Your task to perform on an android device: Go to accessibility settings Image 0: 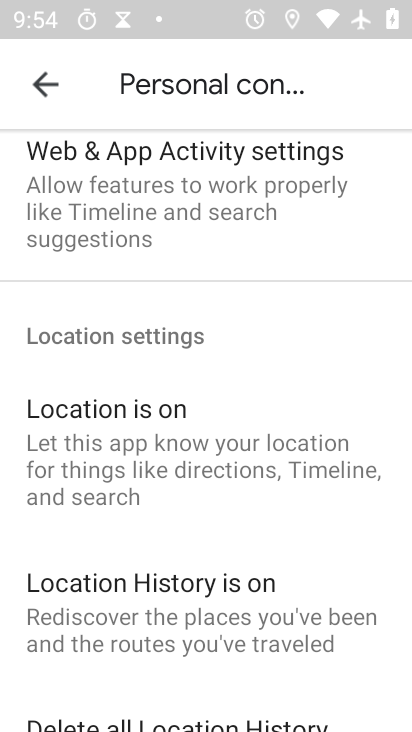
Step 0: press home button
Your task to perform on an android device: Go to accessibility settings Image 1: 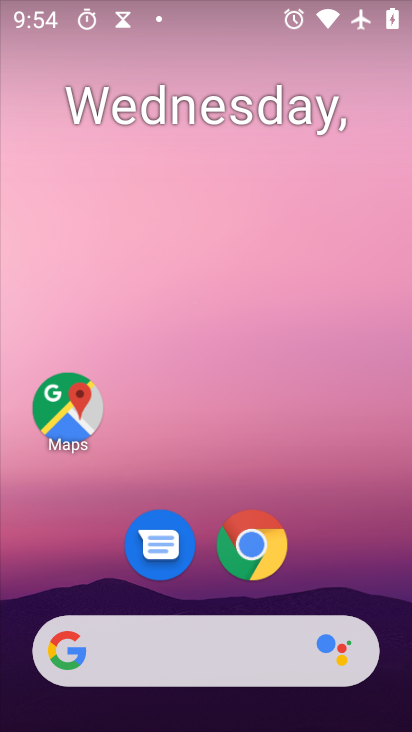
Step 1: drag from (223, 612) to (316, 28)
Your task to perform on an android device: Go to accessibility settings Image 2: 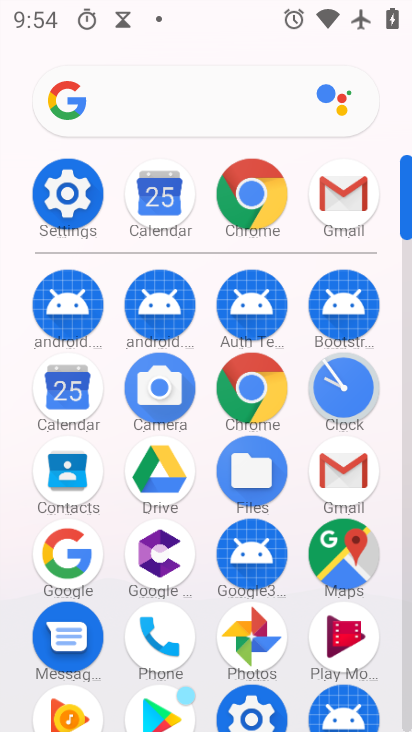
Step 2: click (66, 201)
Your task to perform on an android device: Go to accessibility settings Image 3: 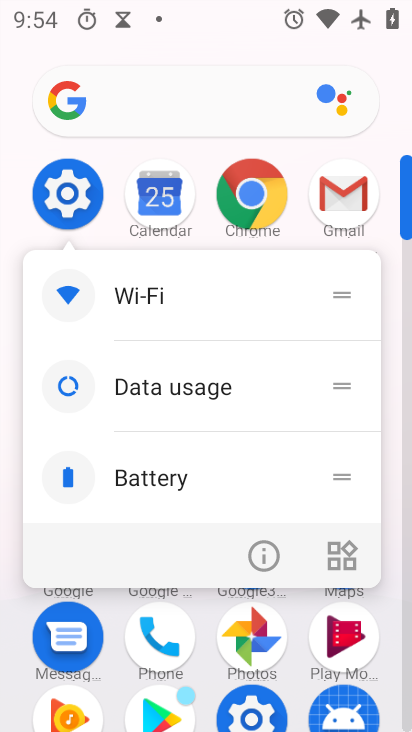
Step 3: click (65, 204)
Your task to perform on an android device: Go to accessibility settings Image 4: 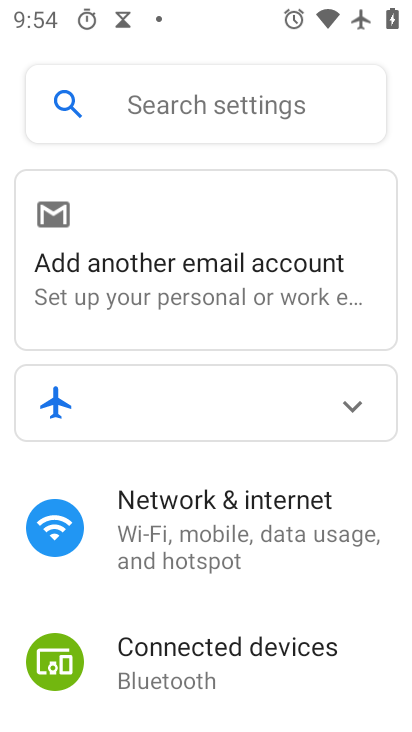
Step 4: drag from (219, 675) to (241, 209)
Your task to perform on an android device: Go to accessibility settings Image 5: 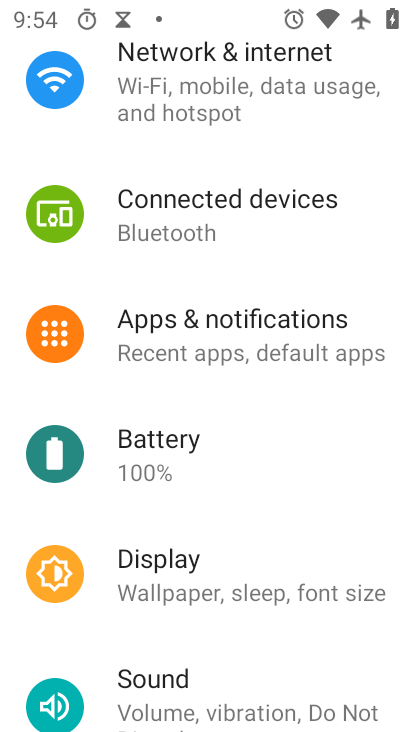
Step 5: drag from (236, 691) to (269, 157)
Your task to perform on an android device: Go to accessibility settings Image 6: 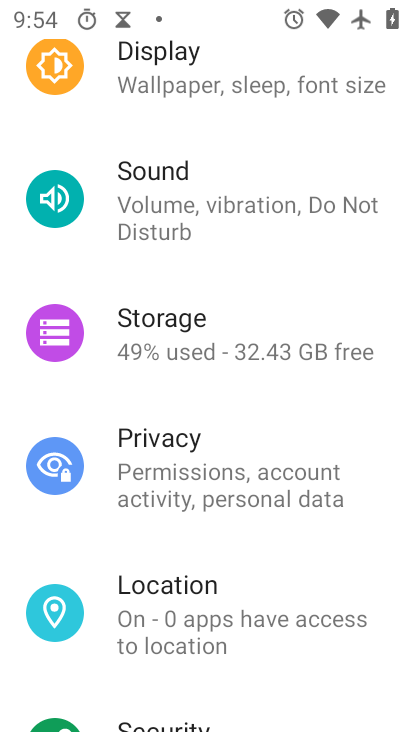
Step 6: drag from (270, 686) to (260, 214)
Your task to perform on an android device: Go to accessibility settings Image 7: 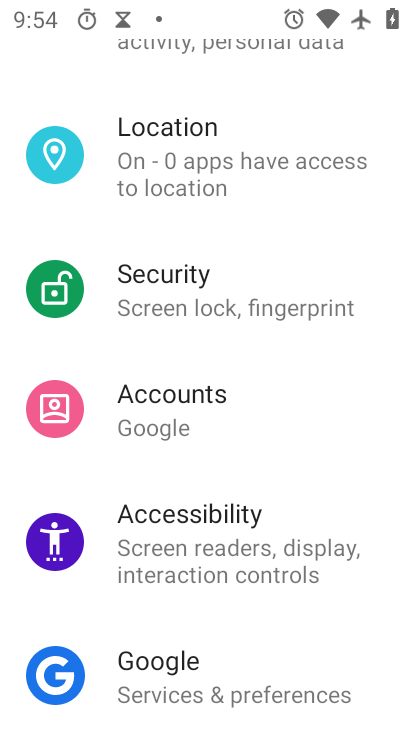
Step 7: click (199, 585)
Your task to perform on an android device: Go to accessibility settings Image 8: 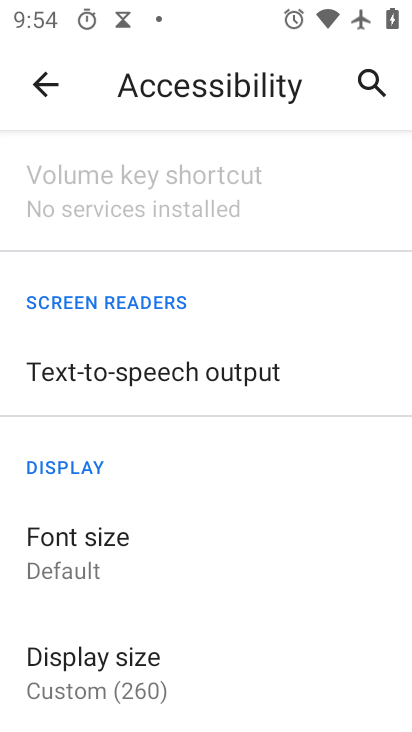
Step 8: task complete